Your task to perform on an android device: make emails show in primary in the gmail app Image 0: 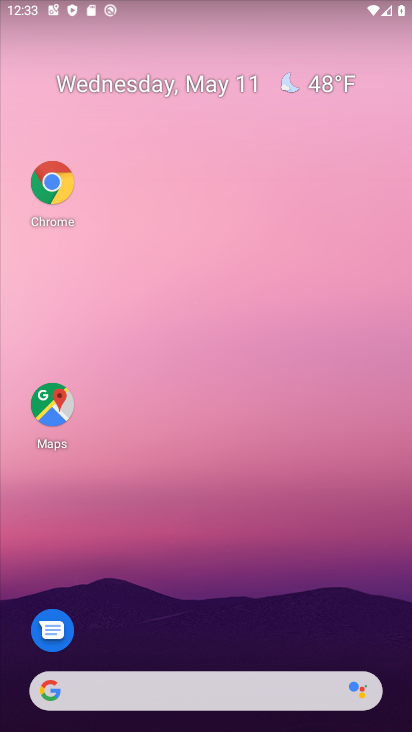
Step 0: drag from (186, 660) to (237, 26)
Your task to perform on an android device: make emails show in primary in the gmail app Image 1: 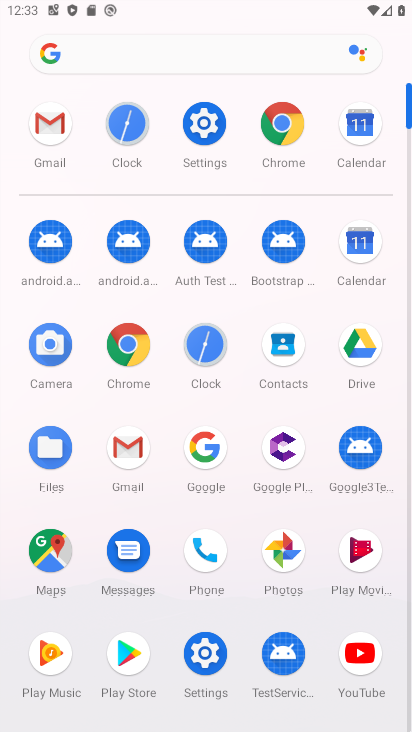
Step 1: click (131, 451)
Your task to perform on an android device: make emails show in primary in the gmail app Image 2: 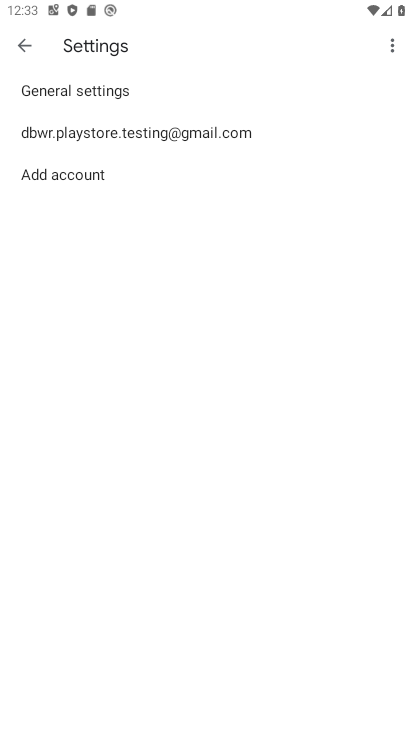
Step 2: click (24, 44)
Your task to perform on an android device: make emails show in primary in the gmail app Image 3: 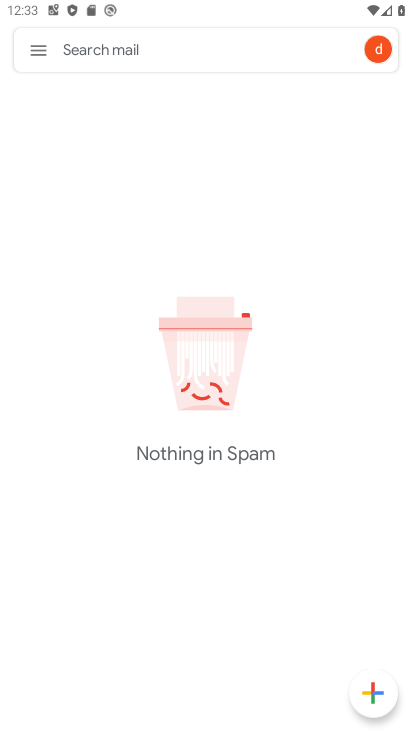
Step 3: click (23, 44)
Your task to perform on an android device: make emails show in primary in the gmail app Image 4: 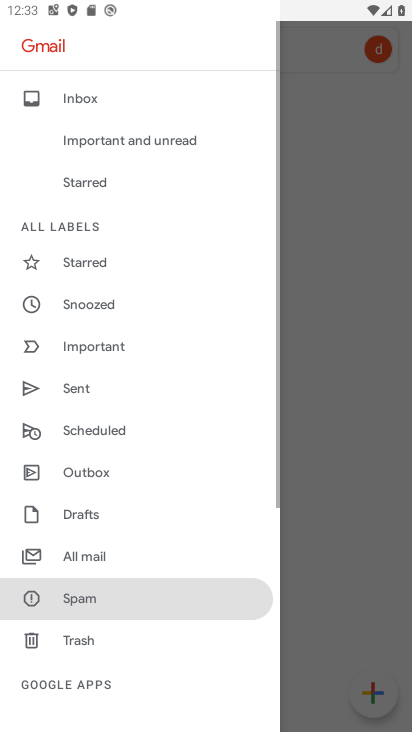
Step 4: drag from (147, 118) to (151, 498)
Your task to perform on an android device: make emails show in primary in the gmail app Image 5: 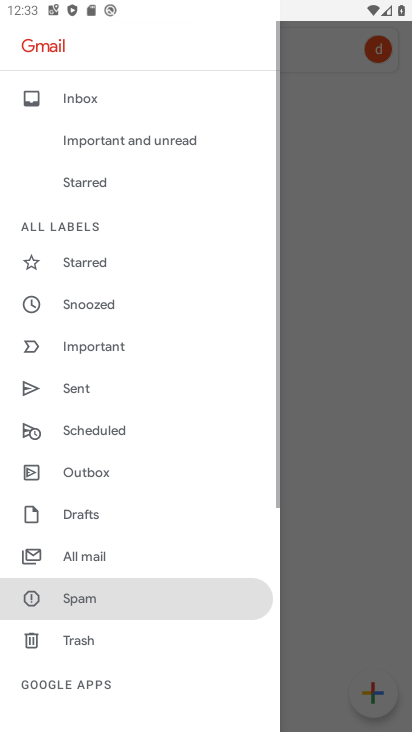
Step 5: drag from (145, 522) to (133, 116)
Your task to perform on an android device: make emails show in primary in the gmail app Image 6: 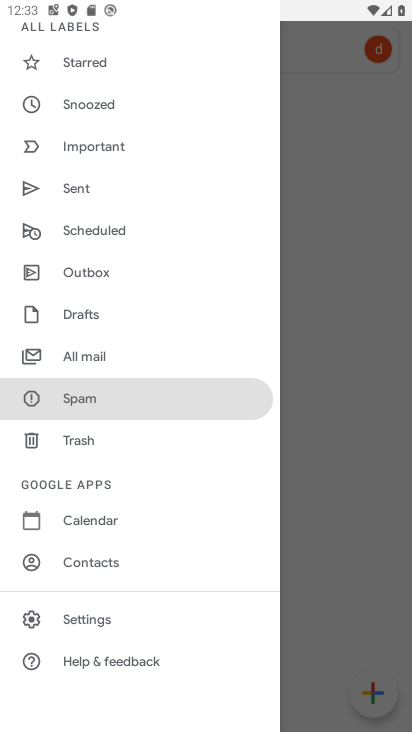
Step 6: click (105, 606)
Your task to perform on an android device: make emails show in primary in the gmail app Image 7: 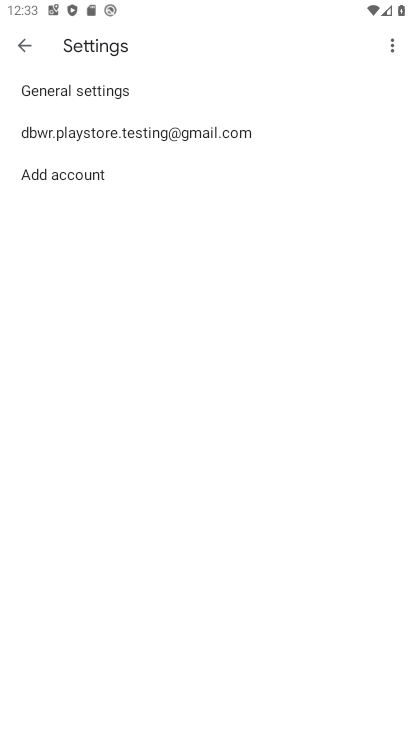
Step 7: click (91, 132)
Your task to perform on an android device: make emails show in primary in the gmail app Image 8: 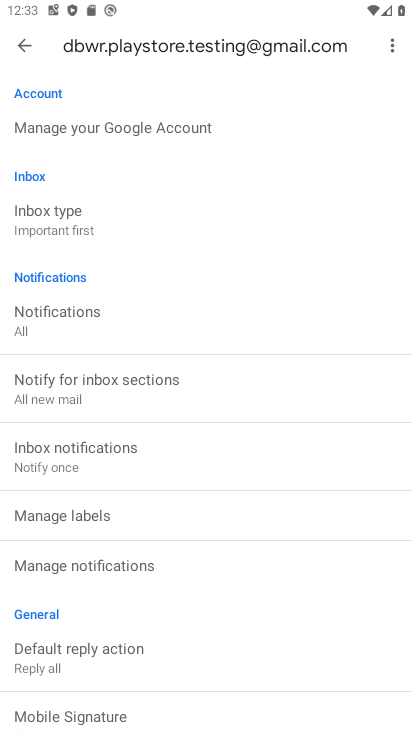
Step 8: click (80, 226)
Your task to perform on an android device: make emails show in primary in the gmail app Image 9: 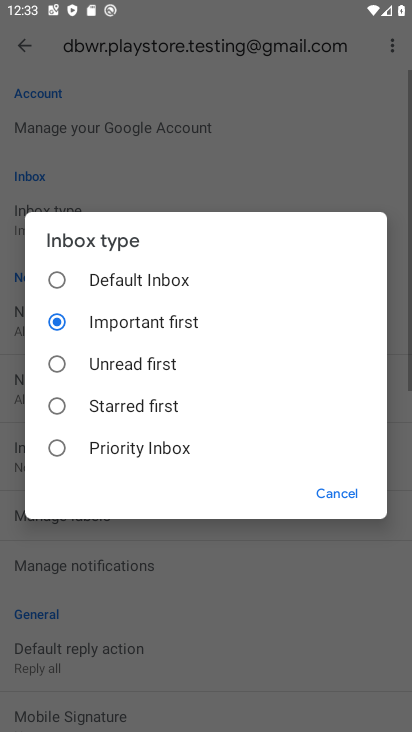
Step 9: click (110, 276)
Your task to perform on an android device: make emails show in primary in the gmail app Image 10: 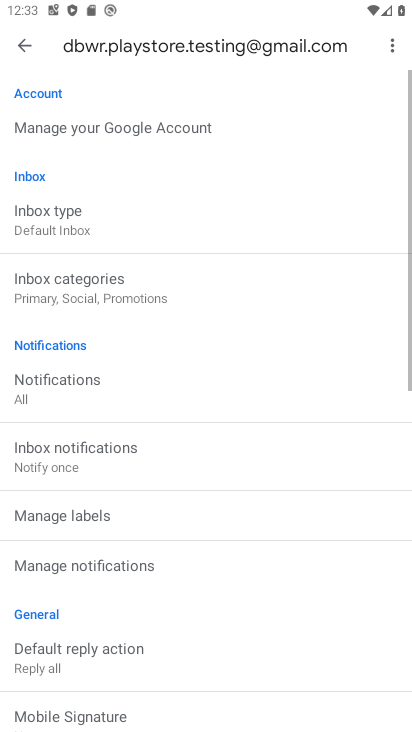
Step 10: click (31, 36)
Your task to perform on an android device: make emails show in primary in the gmail app Image 11: 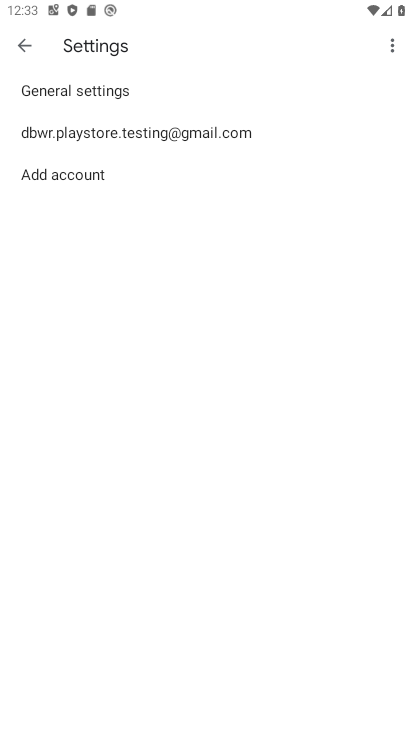
Step 11: click (31, 36)
Your task to perform on an android device: make emails show in primary in the gmail app Image 12: 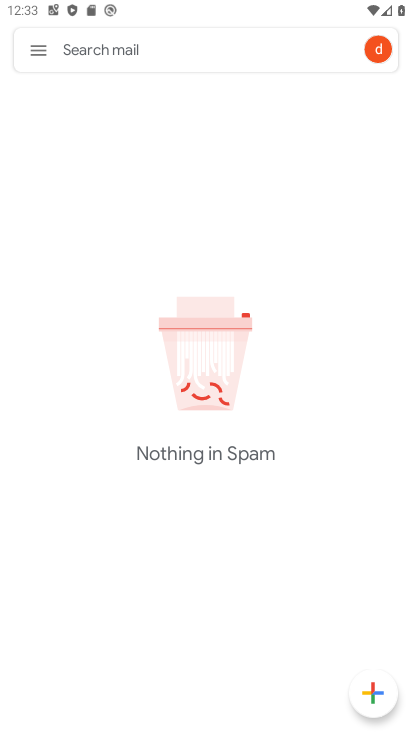
Step 12: click (35, 41)
Your task to perform on an android device: make emails show in primary in the gmail app Image 13: 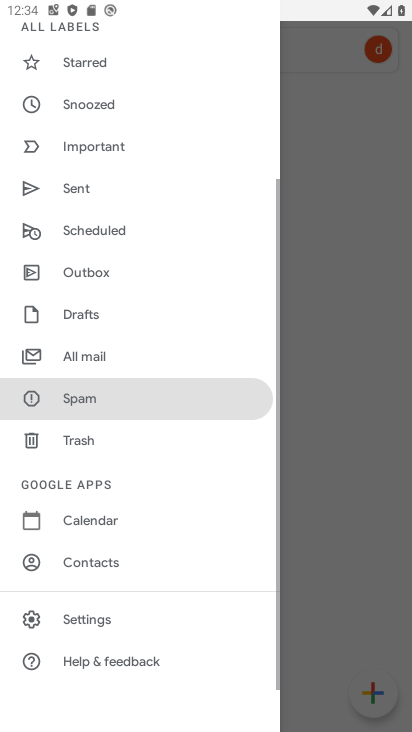
Step 13: drag from (94, 128) to (62, 707)
Your task to perform on an android device: make emails show in primary in the gmail app Image 14: 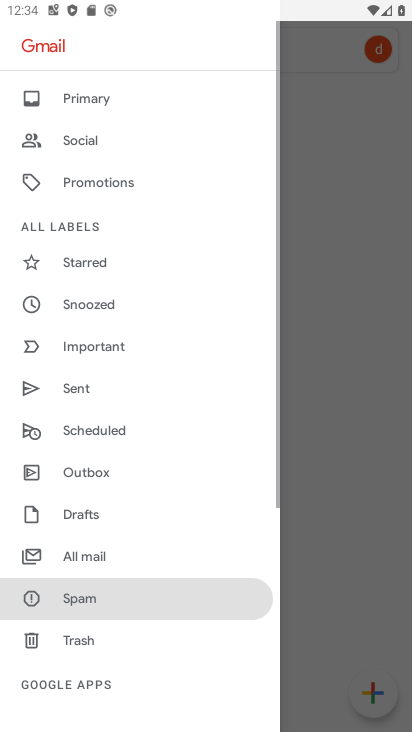
Step 14: click (91, 105)
Your task to perform on an android device: make emails show in primary in the gmail app Image 15: 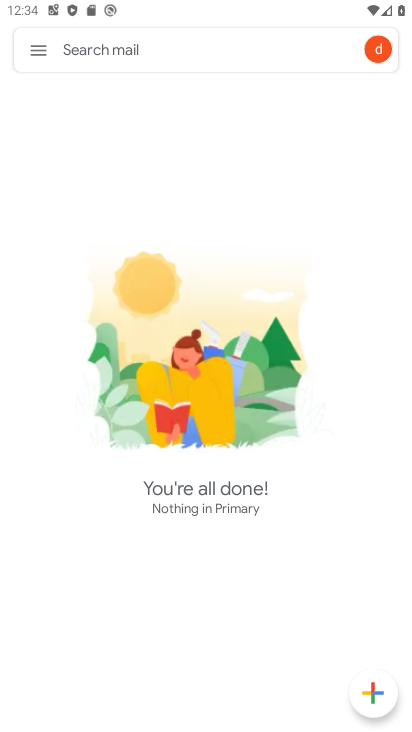
Step 15: task complete